Your task to perform on an android device: Search for Italian restaurants on Maps Image 0: 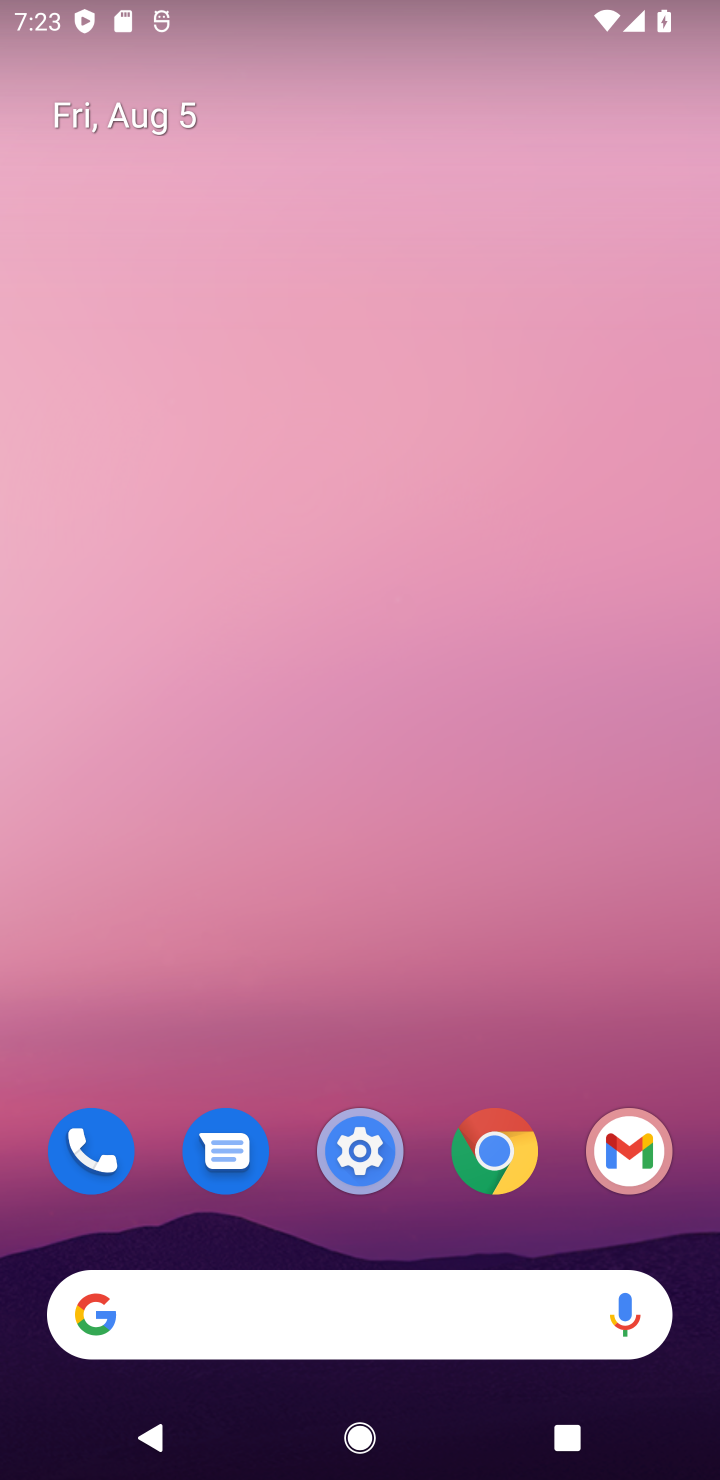
Step 0: drag from (391, 1129) to (391, 87)
Your task to perform on an android device: Search for Italian restaurants on Maps Image 1: 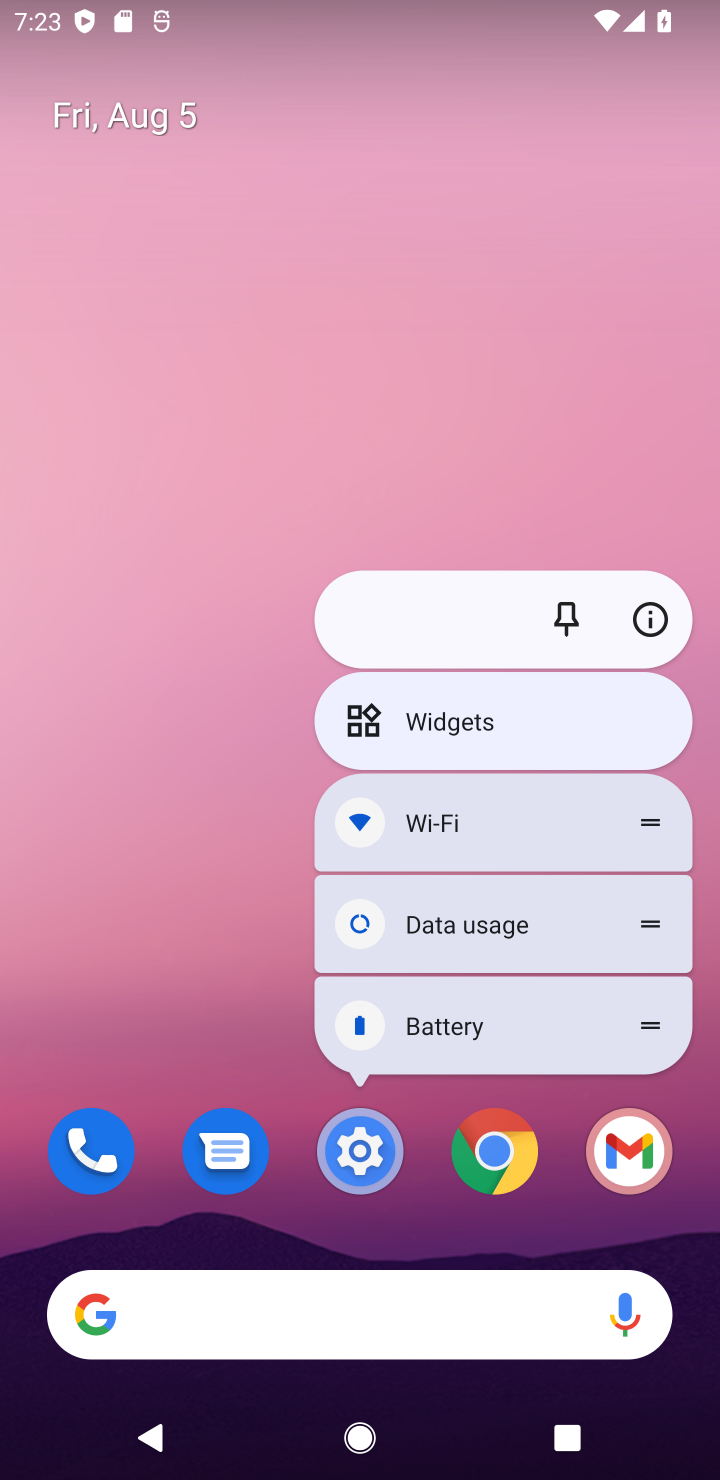
Step 1: click (192, 781)
Your task to perform on an android device: Search for Italian restaurants on Maps Image 2: 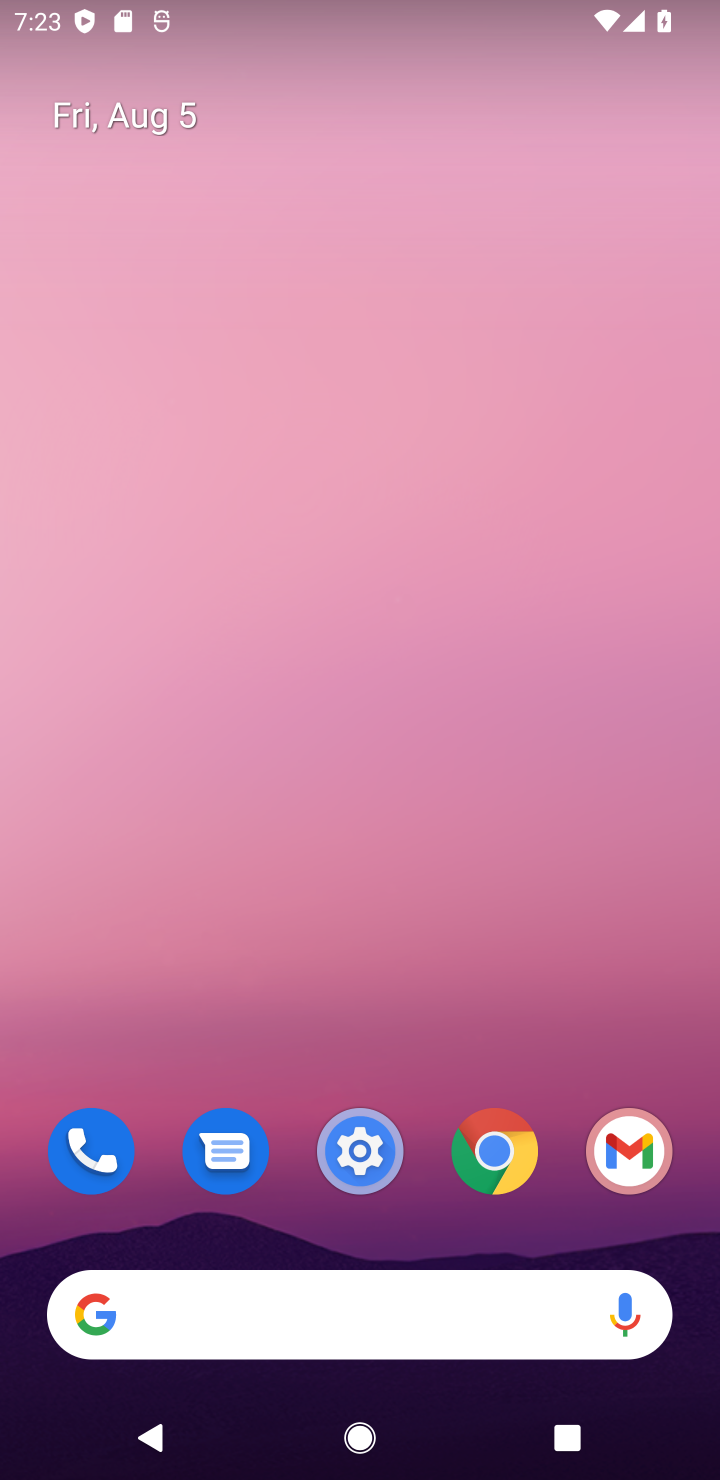
Step 2: drag from (452, 1263) to (418, 234)
Your task to perform on an android device: Search for Italian restaurants on Maps Image 3: 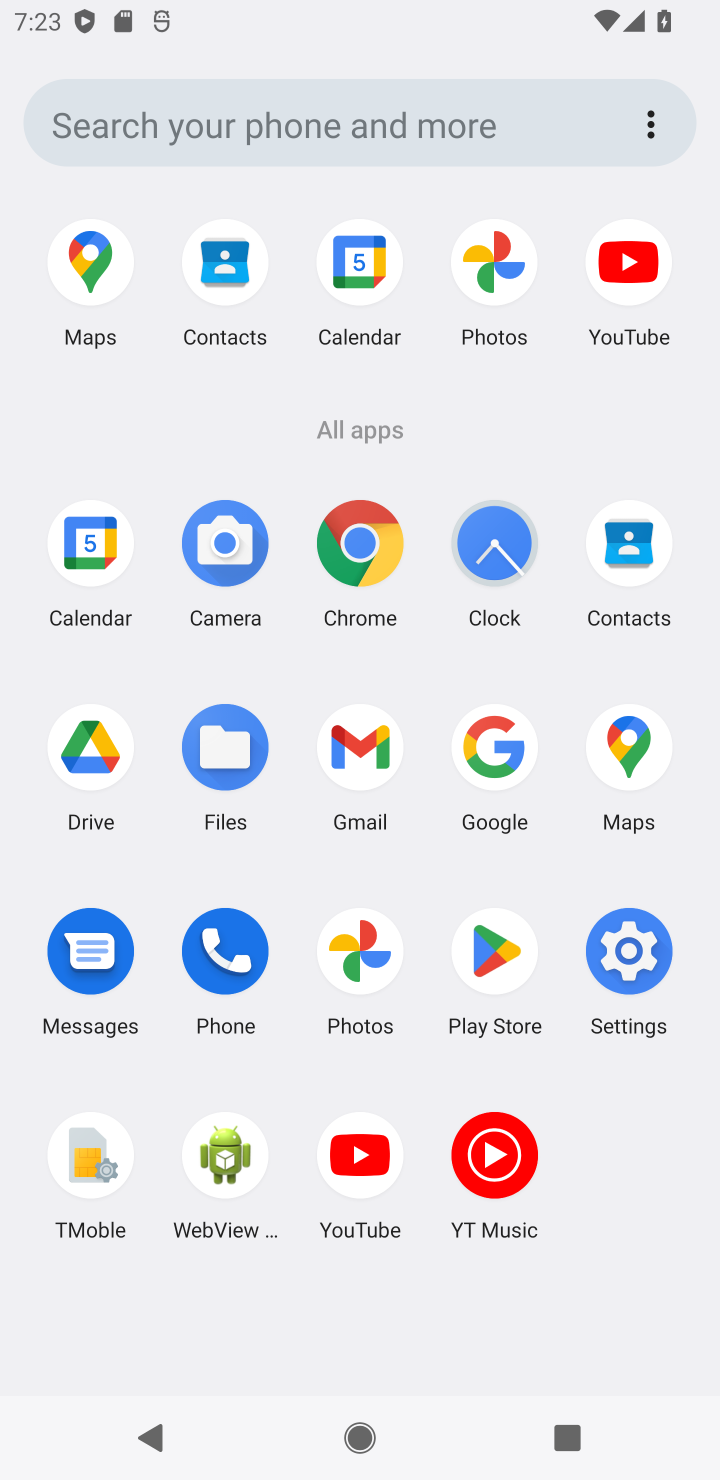
Step 3: click (603, 758)
Your task to perform on an android device: Search for Italian restaurants on Maps Image 4: 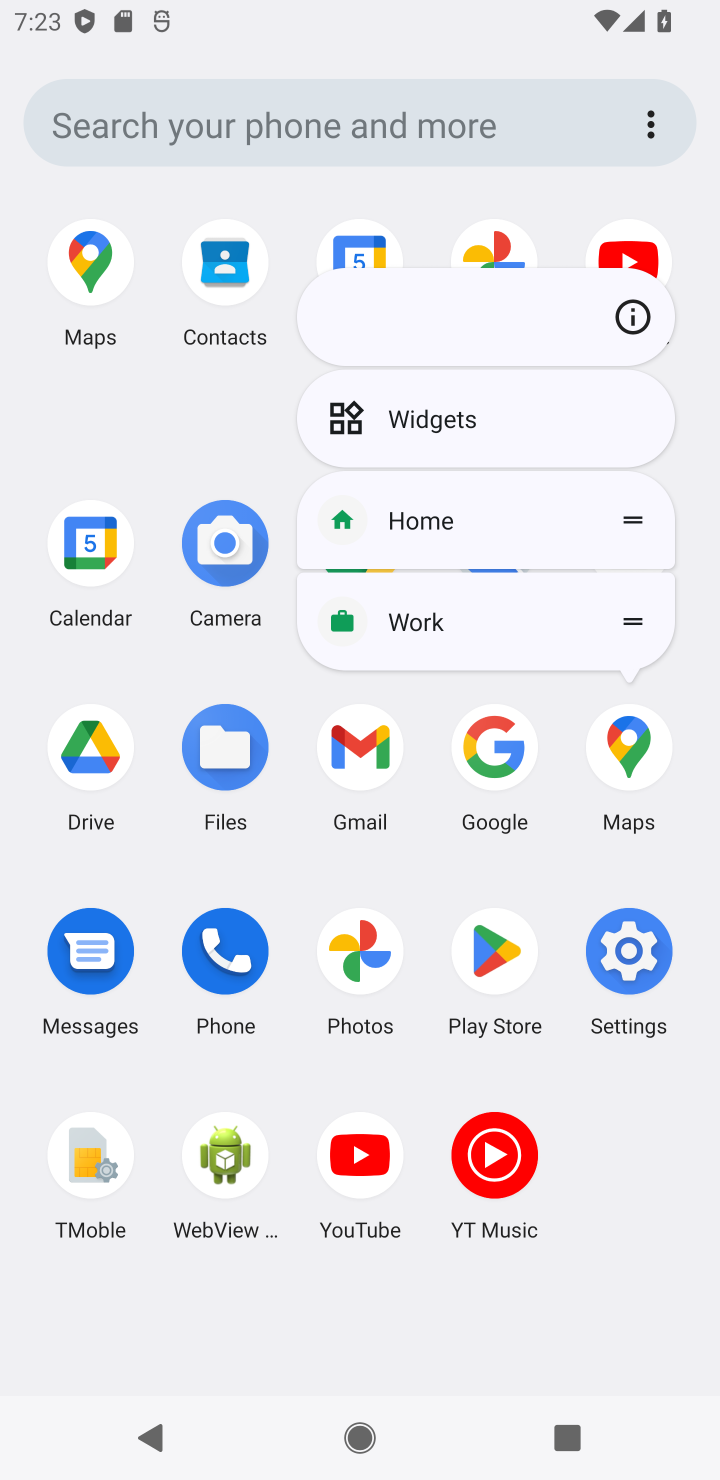
Step 4: click (607, 760)
Your task to perform on an android device: Search for Italian restaurants on Maps Image 5: 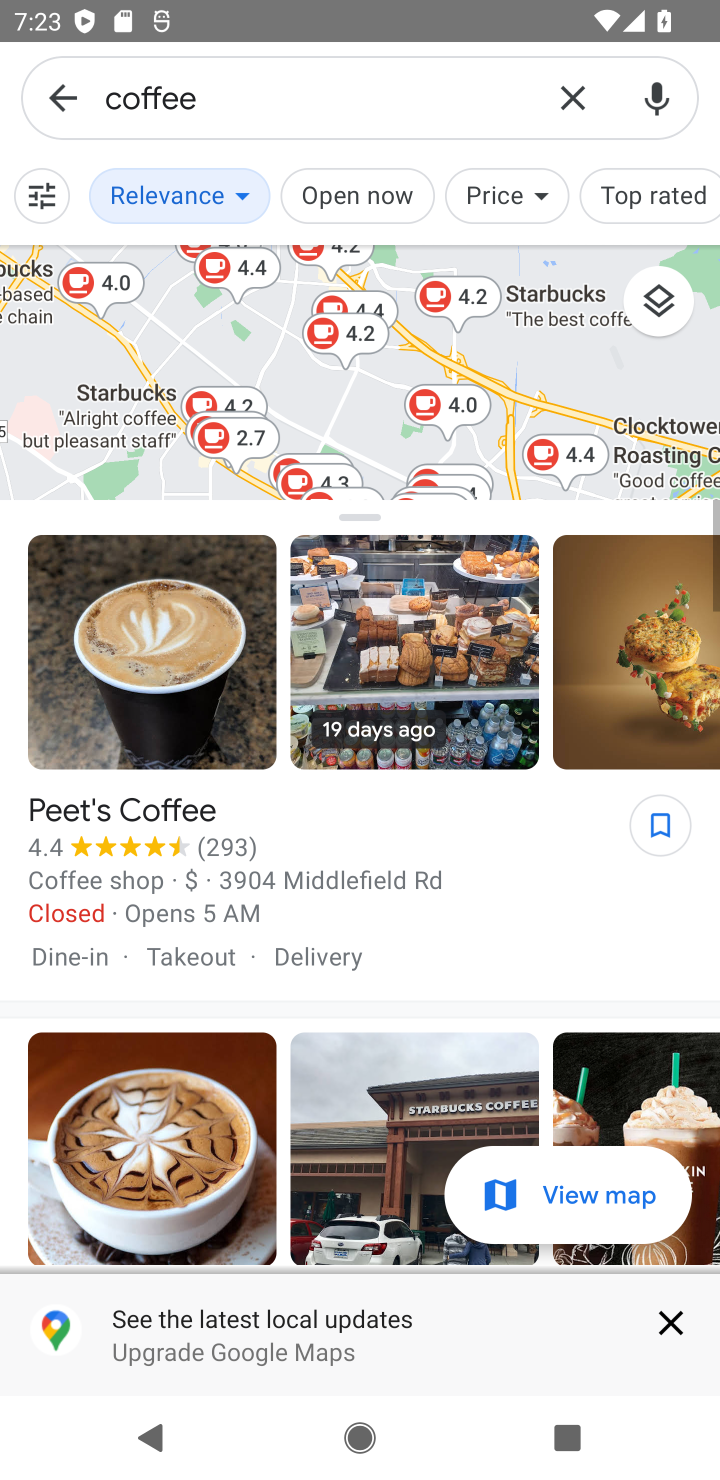
Step 5: click (632, 102)
Your task to perform on an android device: Search for Italian restaurants on Maps Image 6: 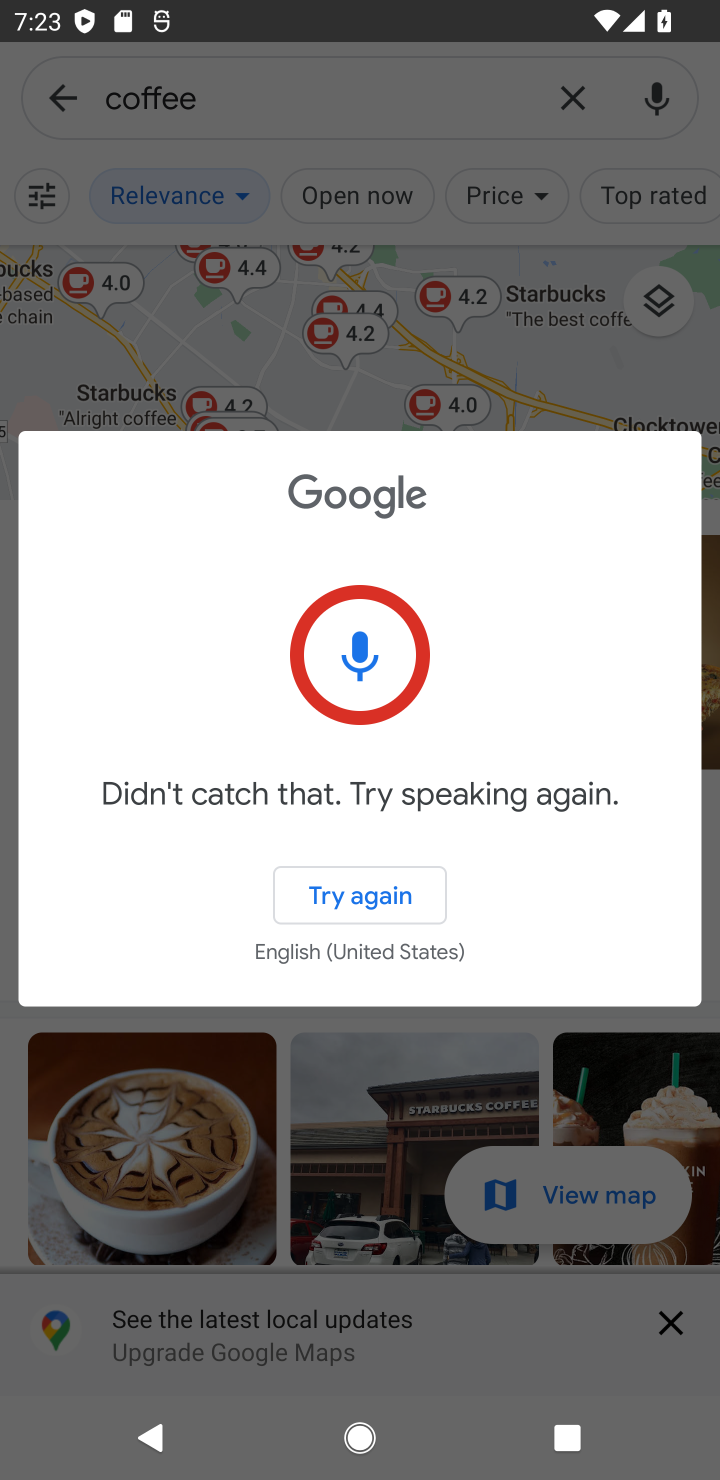
Step 6: click (309, 898)
Your task to perform on an android device: Search for Italian restaurants on Maps Image 7: 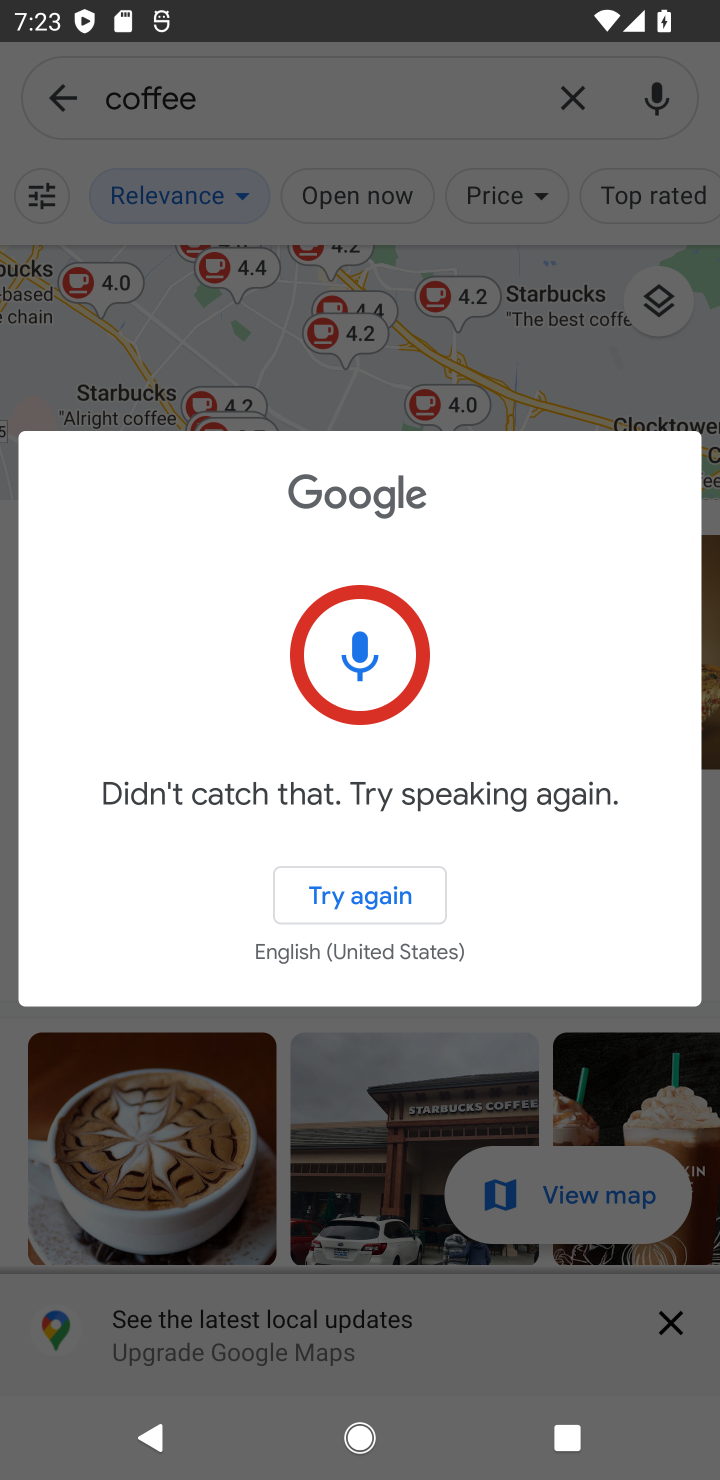
Step 7: click (423, 1045)
Your task to perform on an android device: Search for Italian restaurants on Maps Image 8: 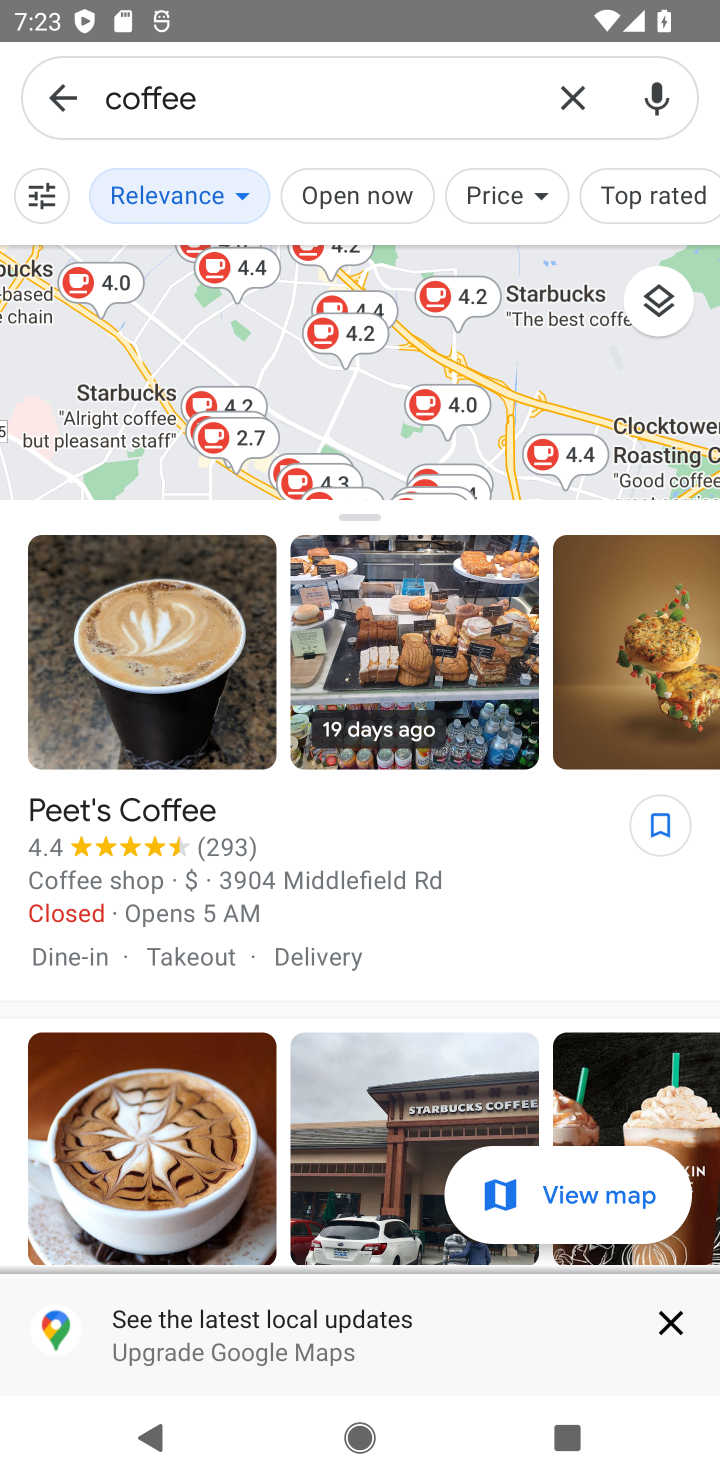
Step 8: click (585, 98)
Your task to perform on an android device: Search for Italian restaurants on Maps Image 9: 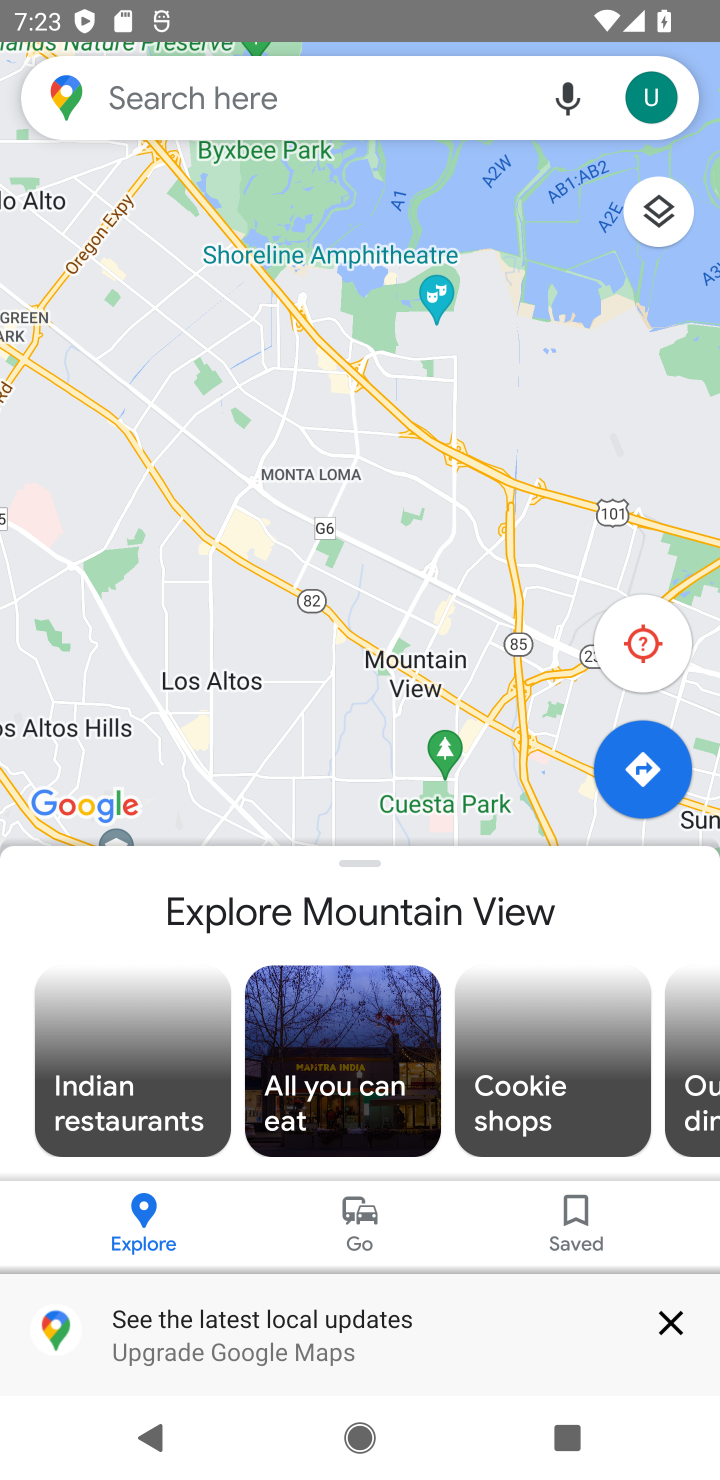
Step 9: click (300, 103)
Your task to perform on an android device: Search for Italian restaurants on Maps Image 10: 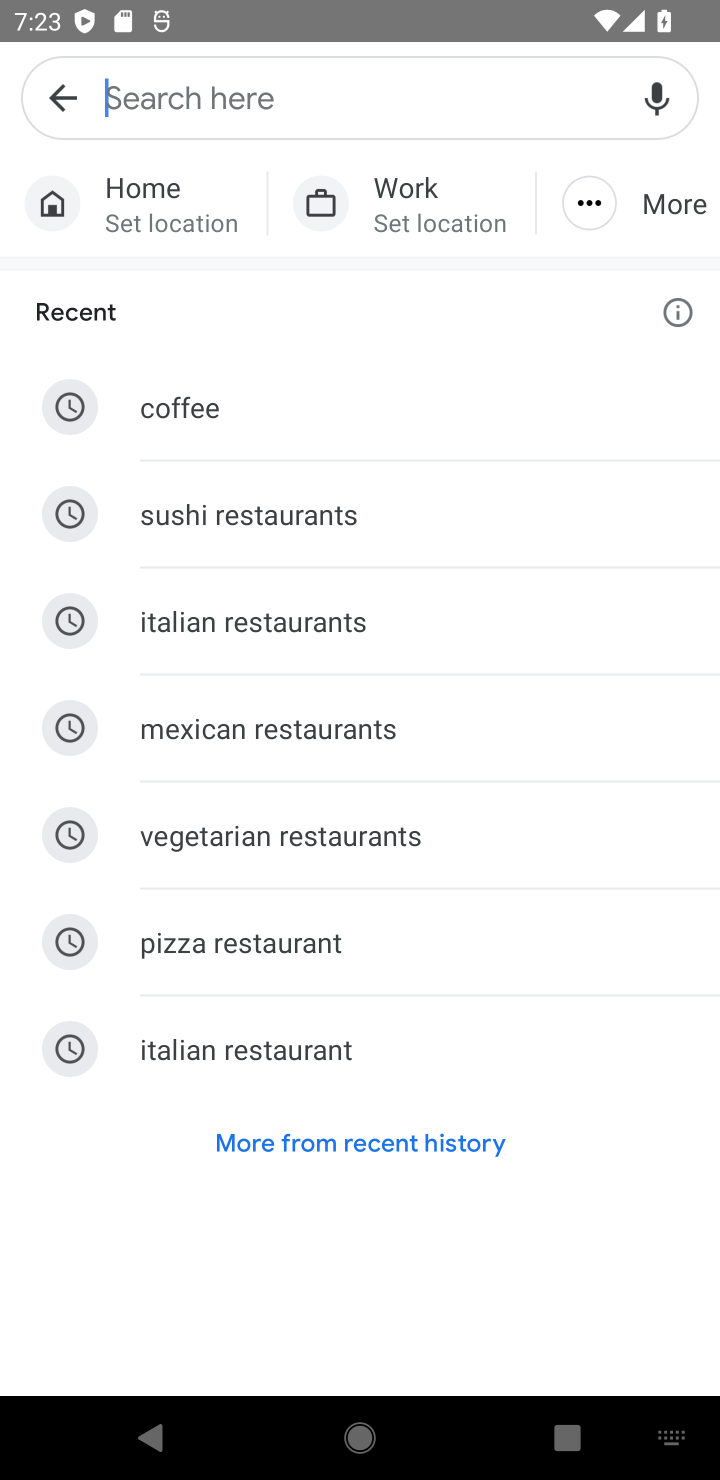
Step 10: click (232, 1021)
Your task to perform on an android device: Search for Italian restaurants on Maps Image 11: 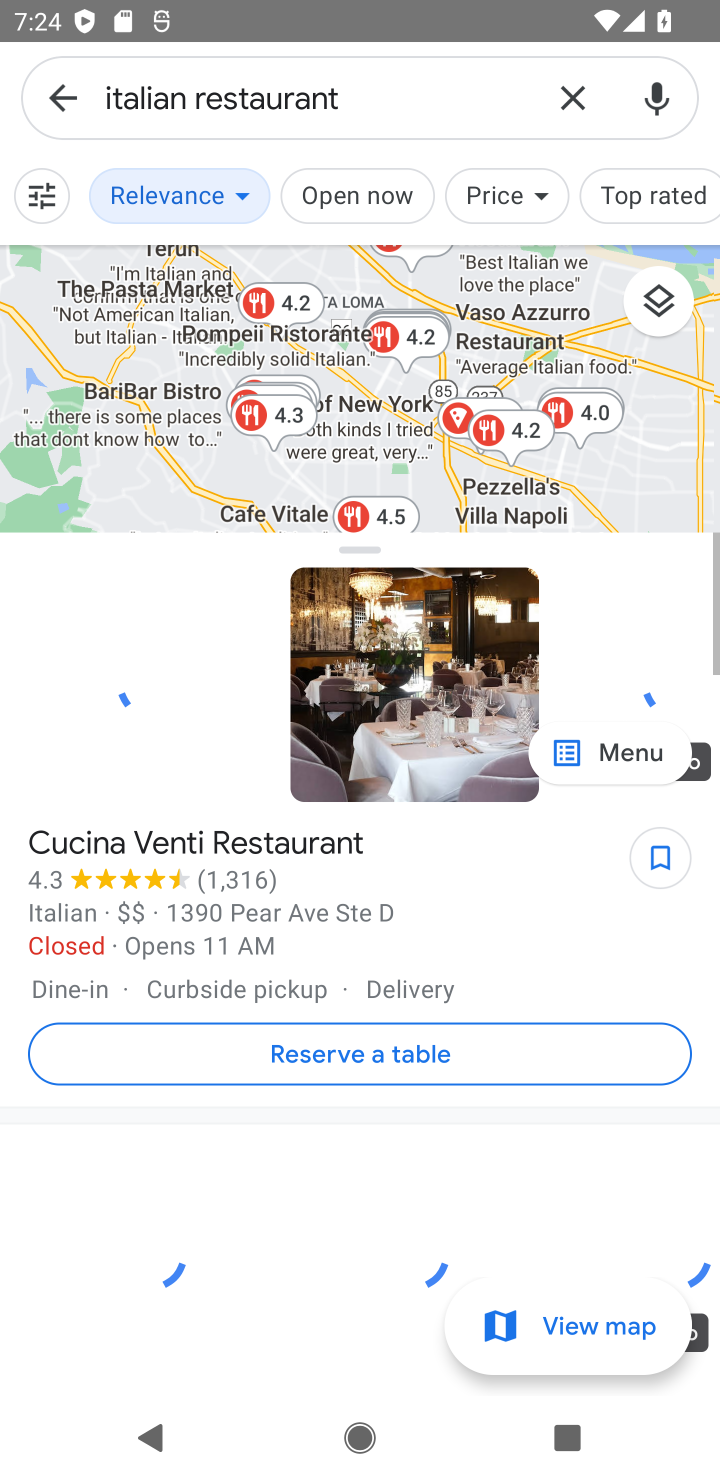
Step 11: task complete